Your task to perform on an android device: Go to wifi settings Image 0: 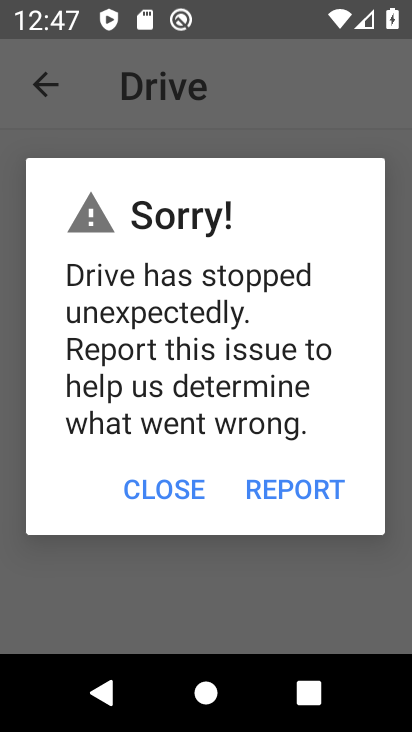
Step 0: press home button
Your task to perform on an android device: Go to wifi settings Image 1: 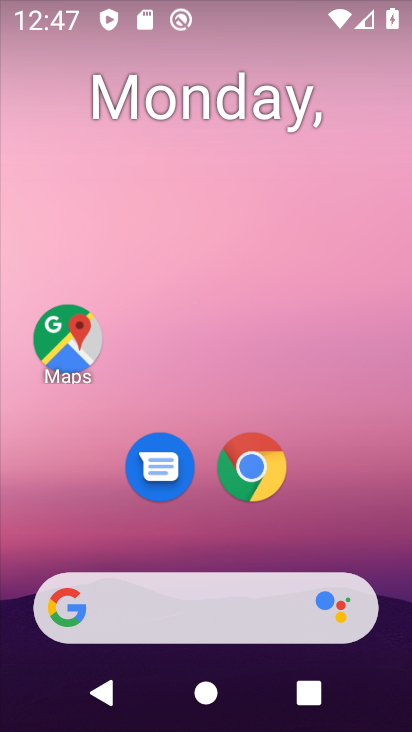
Step 1: drag from (322, 505) to (363, 1)
Your task to perform on an android device: Go to wifi settings Image 2: 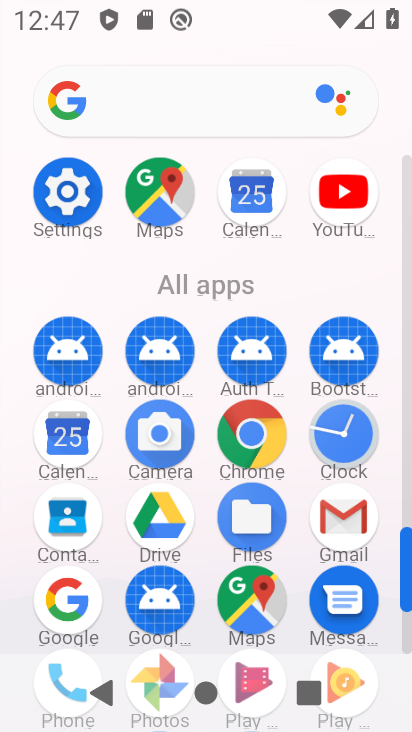
Step 2: click (69, 204)
Your task to perform on an android device: Go to wifi settings Image 3: 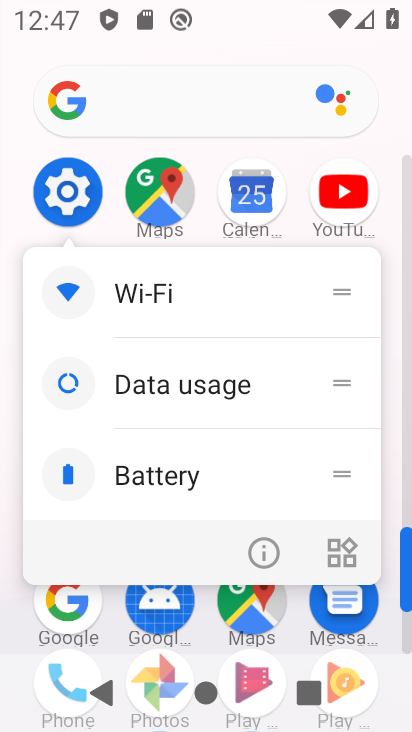
Step 3: click (69, 204)
Your task to perform on an android device: Go to wifi settings Image 4: 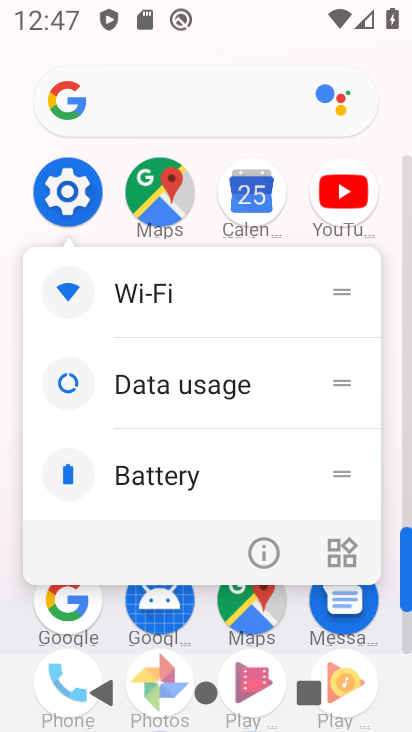
Step 4: click (70, 204)
Your task to perform on an android device: Go to wifi settings Image 5: 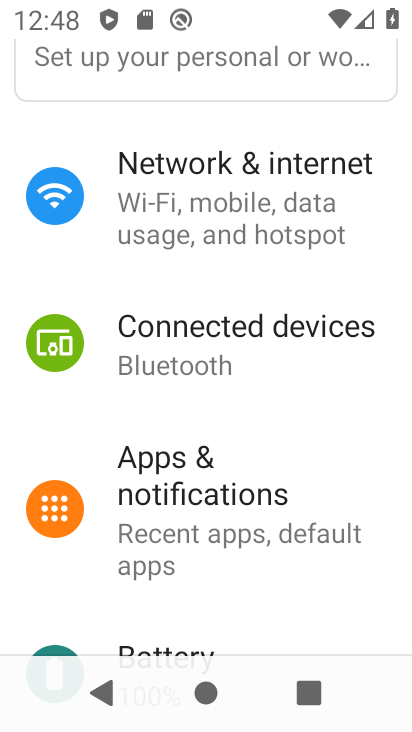
Step 5: click (178, 234)
Your task to perform on an android device: Go to wifi settings Image 6: 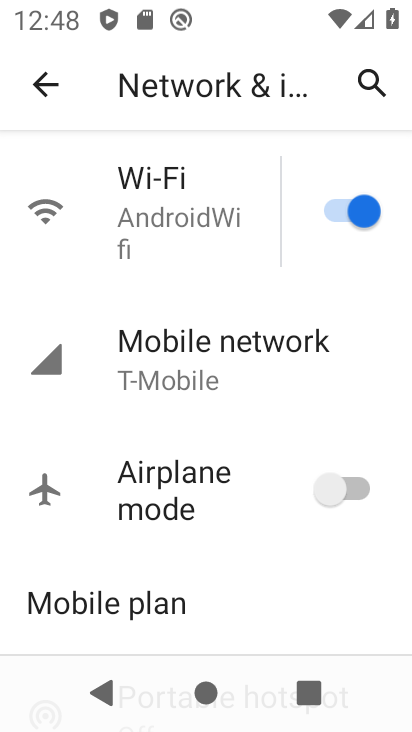
Step 6: click (131, 212)
Your task to perform on an android device: Go to wifi settings Image 7: 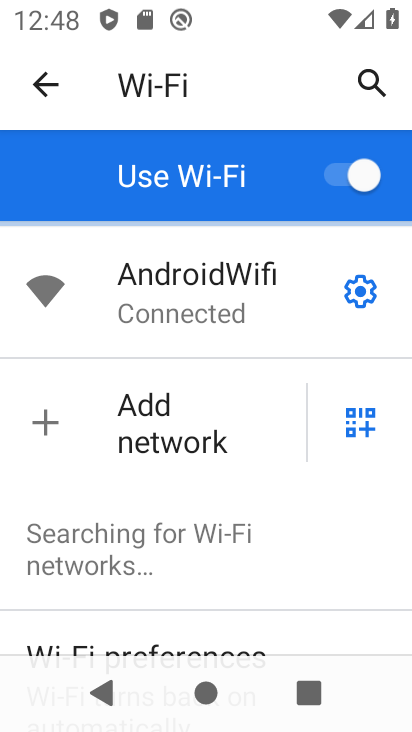
Step 7: task complete